Your task to perform on an android device: Check the news Image 0: 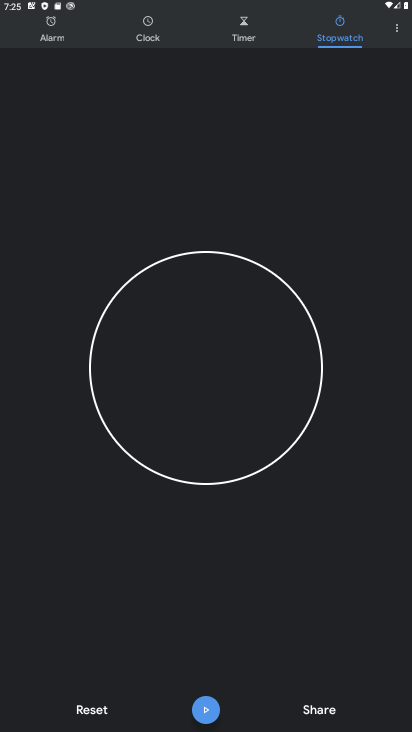
Step 0: press home button
Your task to perform on an android device: Check the news Image 1: 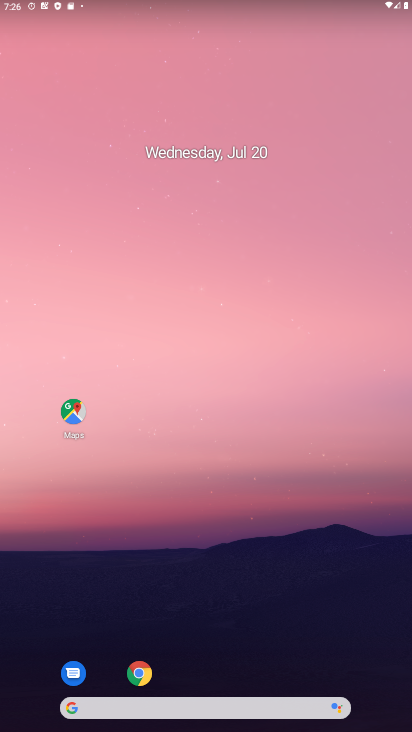
Step 1: drag from (377, 664) to (201, 0)
Your task to perform on an android device: Check the news Image 2: 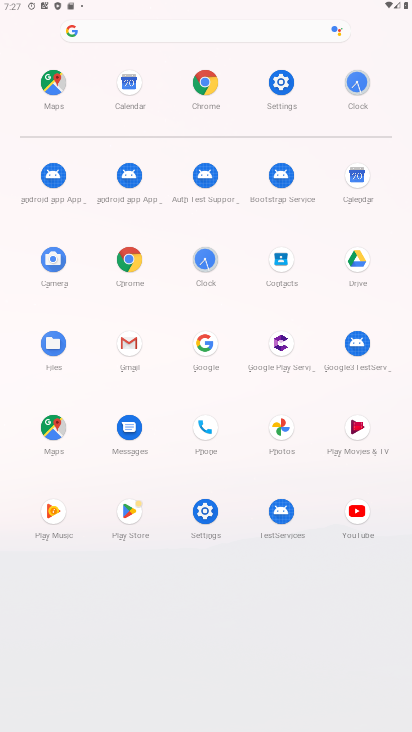
Step 2: click (205, 345)
Your task to perform on an android device: Check the news Image 3: 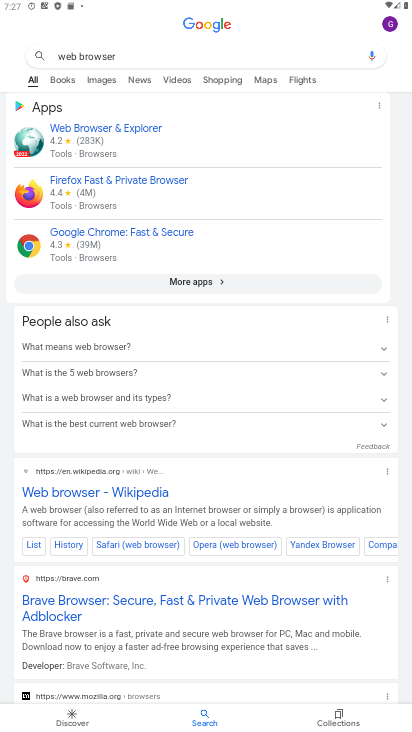
Step 3: click (194, 60)
Your task to perform on an android device: Check the news Image 4: 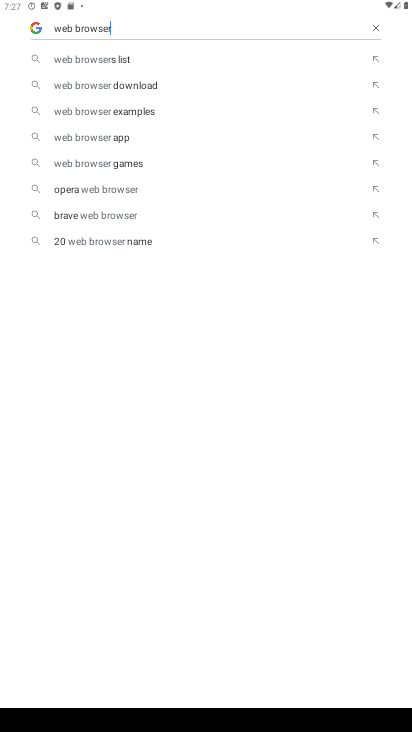
Step 4: click (374, 23)
Your task to perform on an android device: Check the news Image 5: 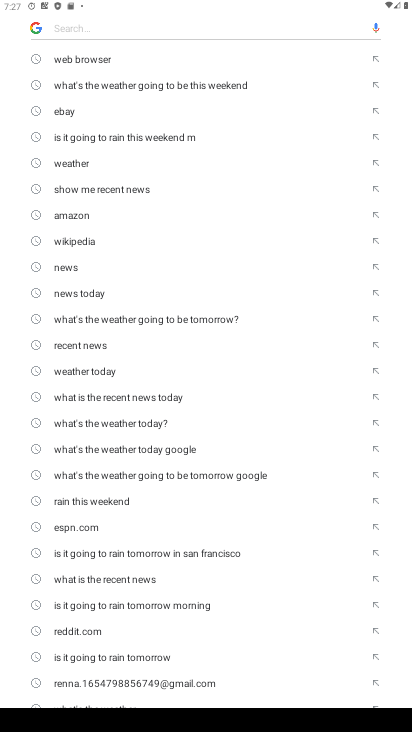
Step 5: click (80, 262)
Your task to perform on an android device: Check the news Image 6: 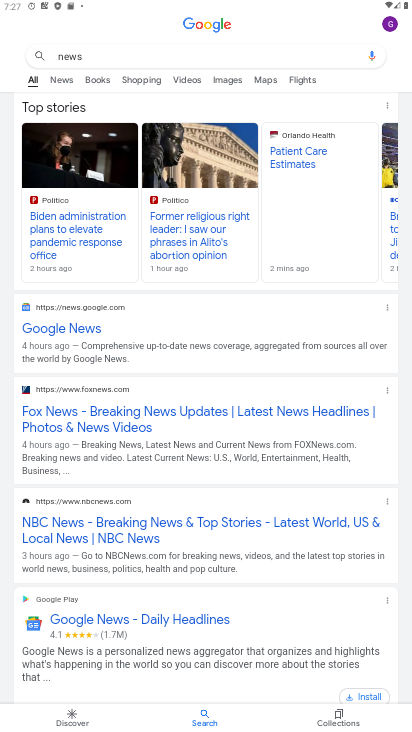
Step 6: task complete